Your task to perform on an android device: Empty the shopping cart on bestbuy. Add "sony triple a" to the cart on bestbuy Image 0: 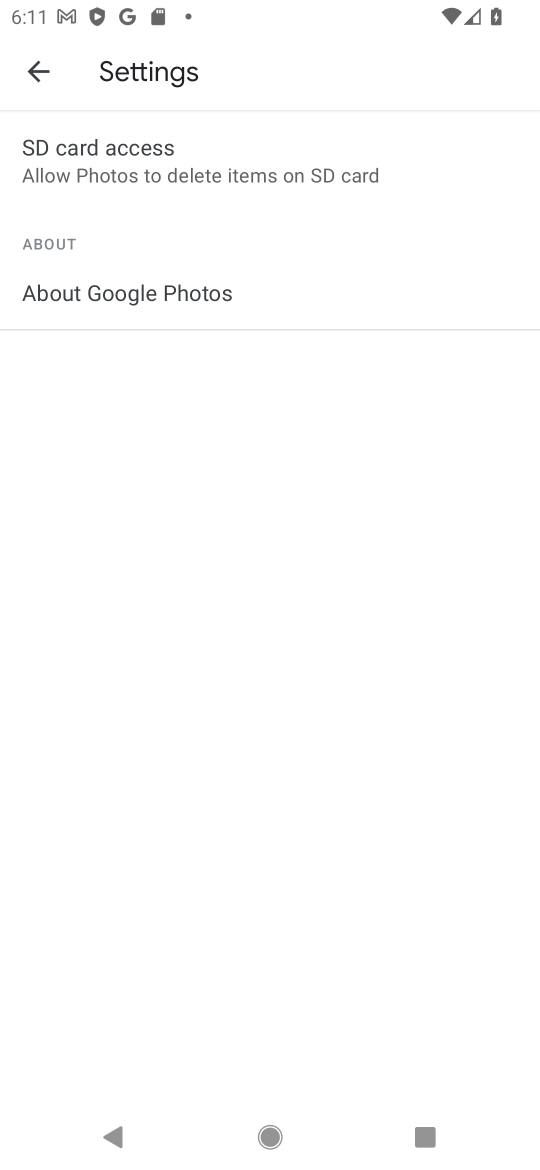
Step 0: task complete